Your task to perform on an android device: move a message to another label in the gmail app Image 0: 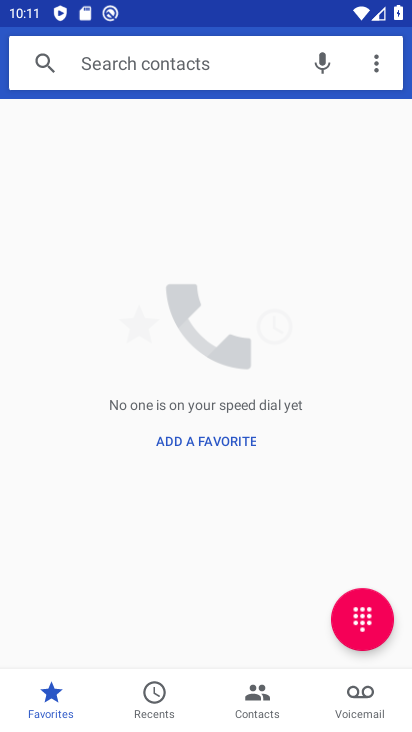
Step 0: press home button
Your task to perform on an android device: move a message to another label in the gmail app Image 1: 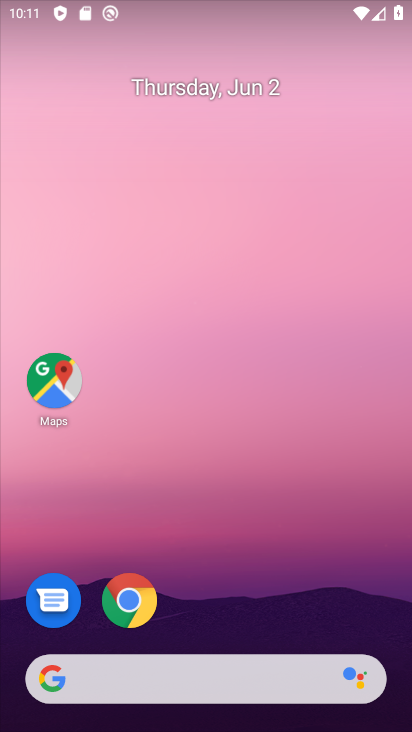
Step 1: drag from (194, 609) to (240, 145)
Your task to perform on an android device: move a message to another label in the gmail app Image 2: 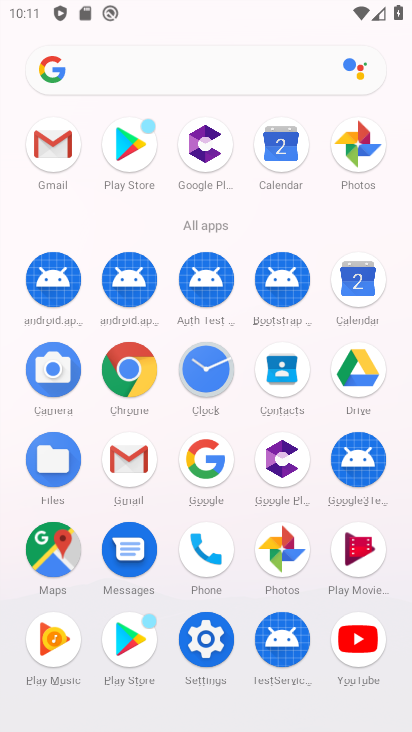
Step 2: click (49, 140)
Your task to perform on an android device: move a message to another label in the gmail app Image 3: 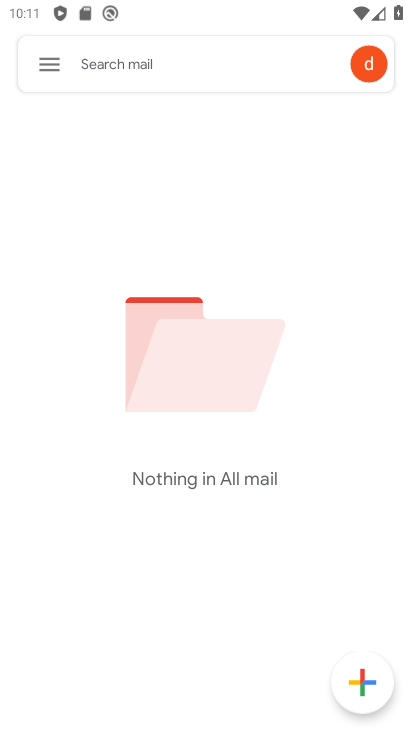
Step 3: task complete